Your task to perform on an android device: turn off wifi Image 0: 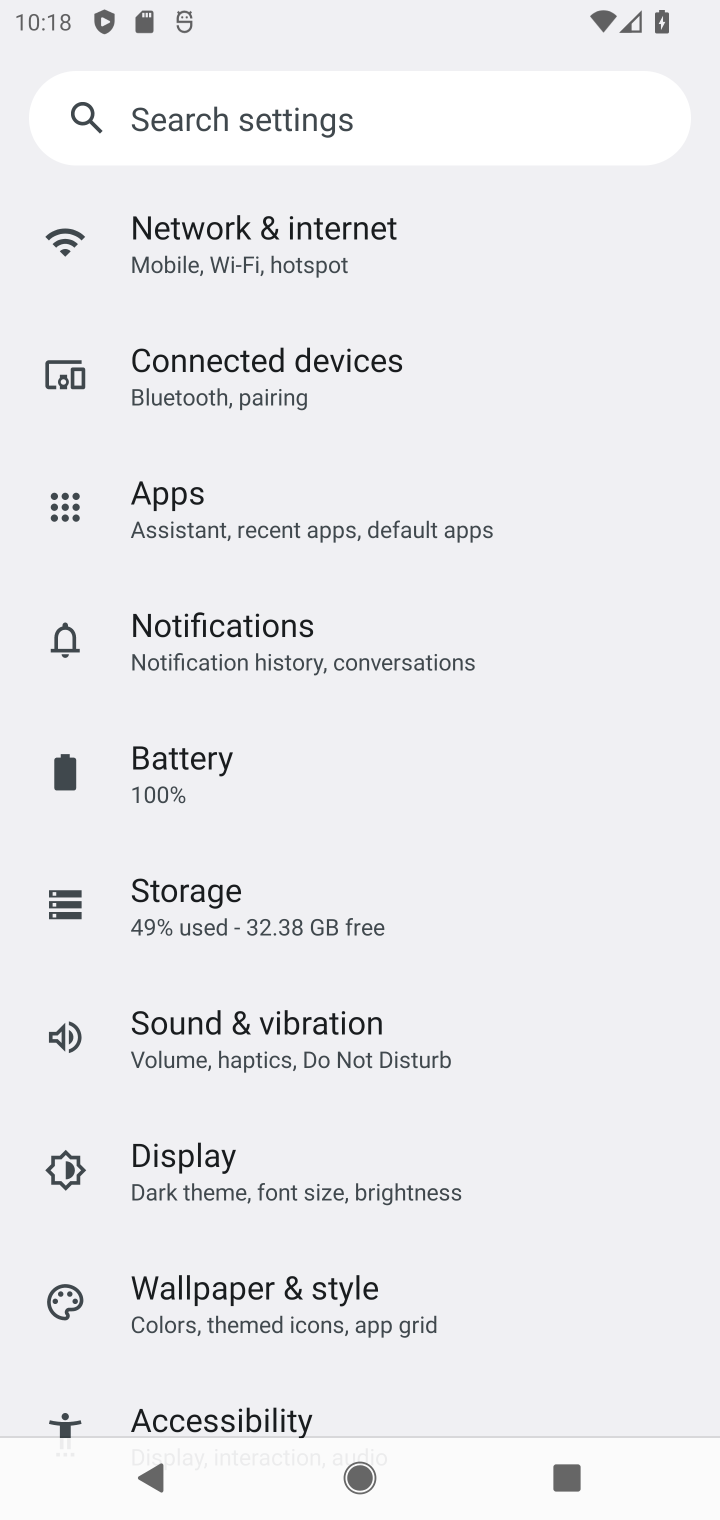
Step 0: drag from (555, 14) to (337, 1215)
Your task to perform on an android device: turn off wifi Image 1: 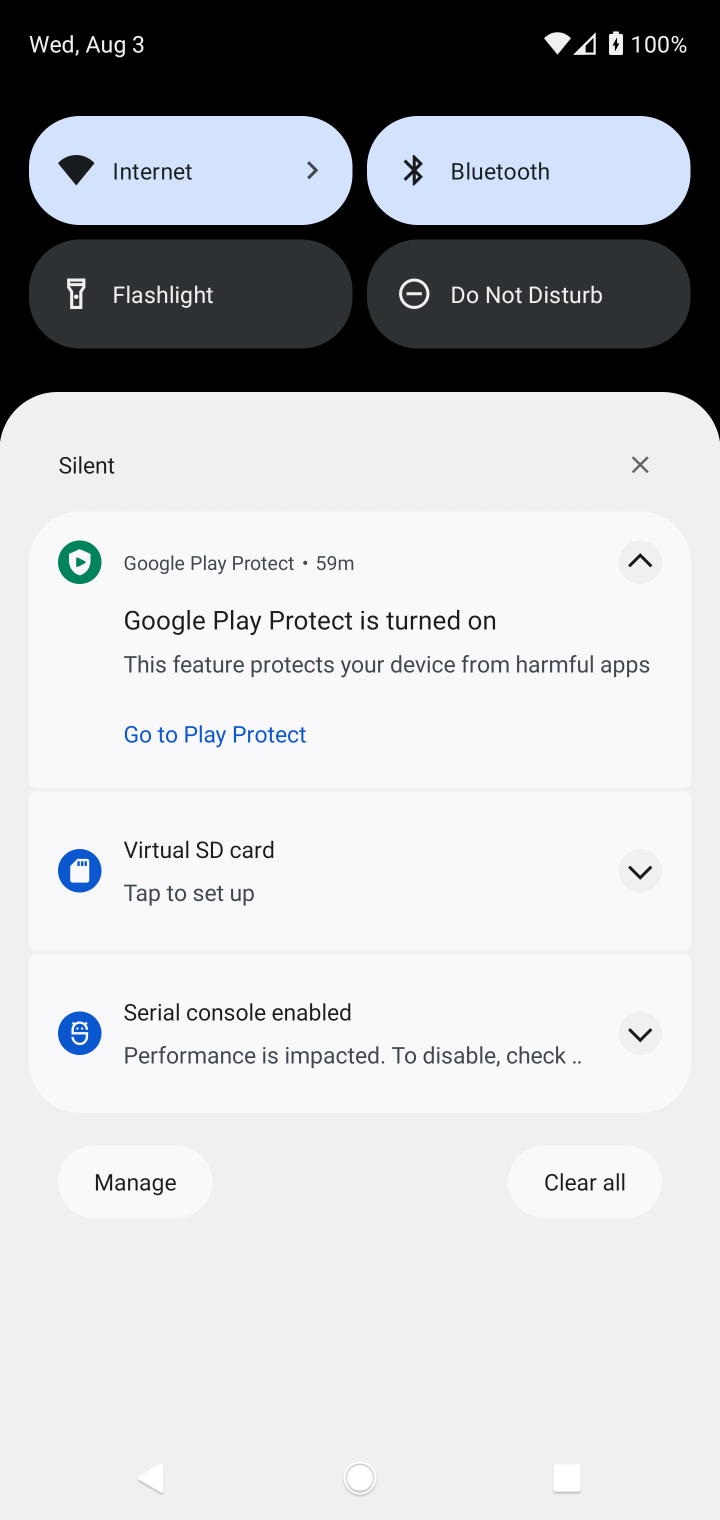
Step 1: click (127, 191)
Your task to perform on an android device: turn off wifi Image 2: 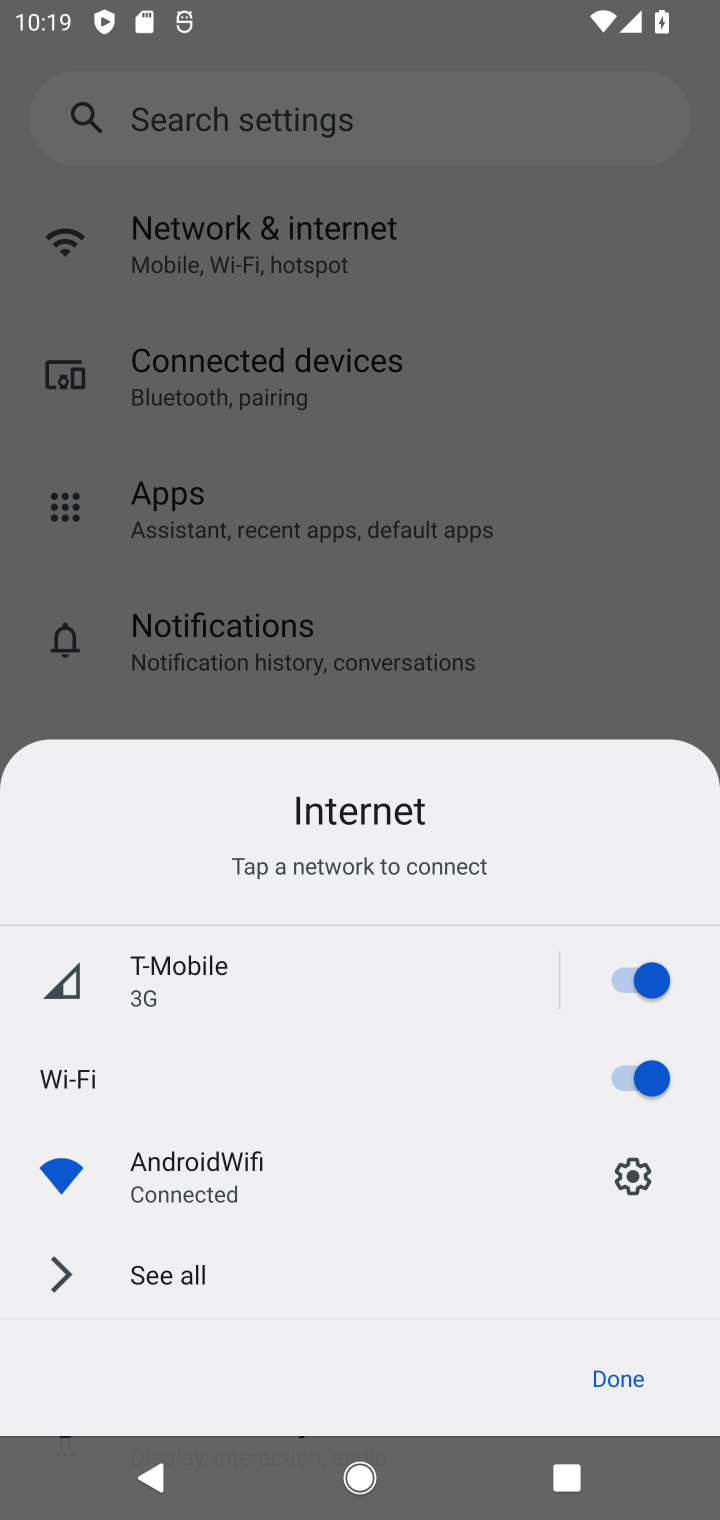
Step 2: click (271, 1181)
Your task to perform on an android device: turn off wifi Image 3: 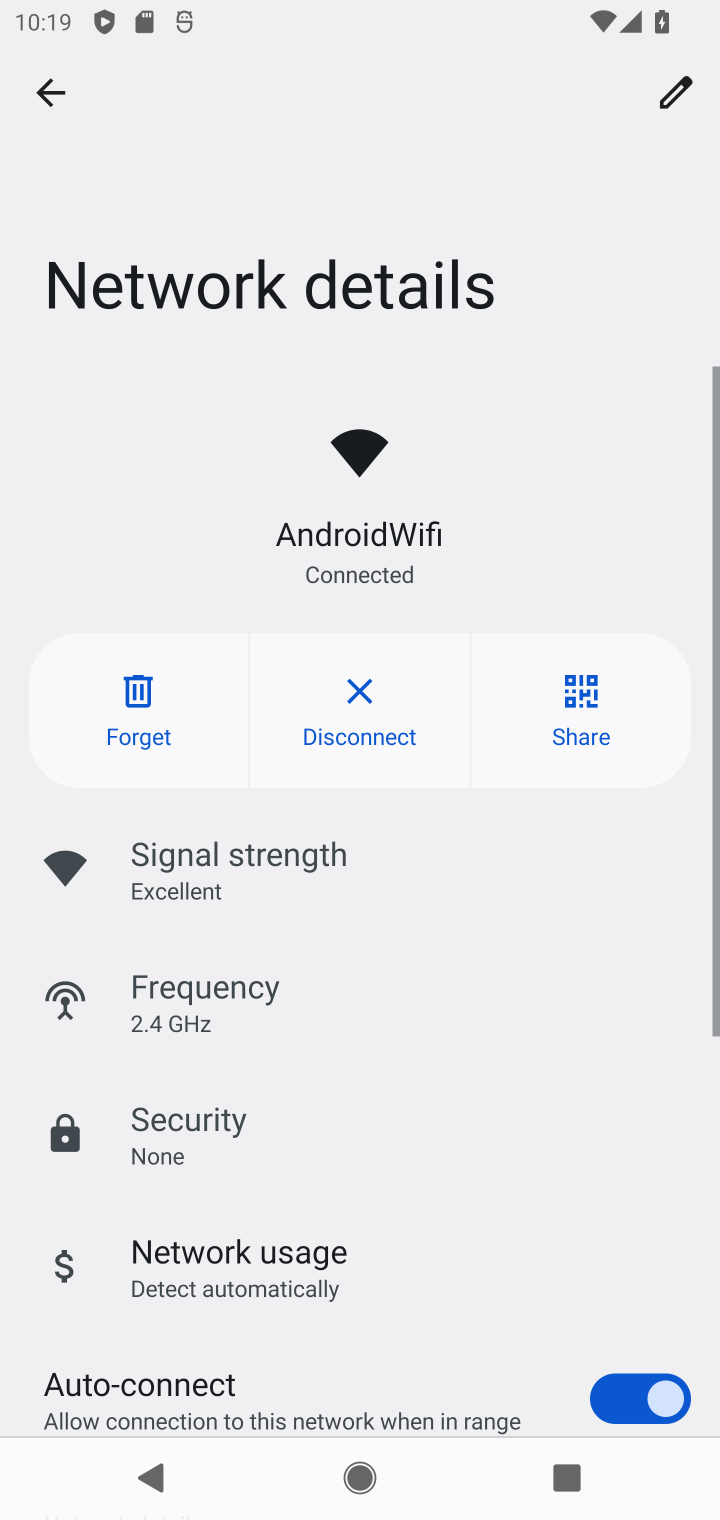
Step 3: click (354, 708)
Your task to perform on an android device: turn off wifi Image 4: 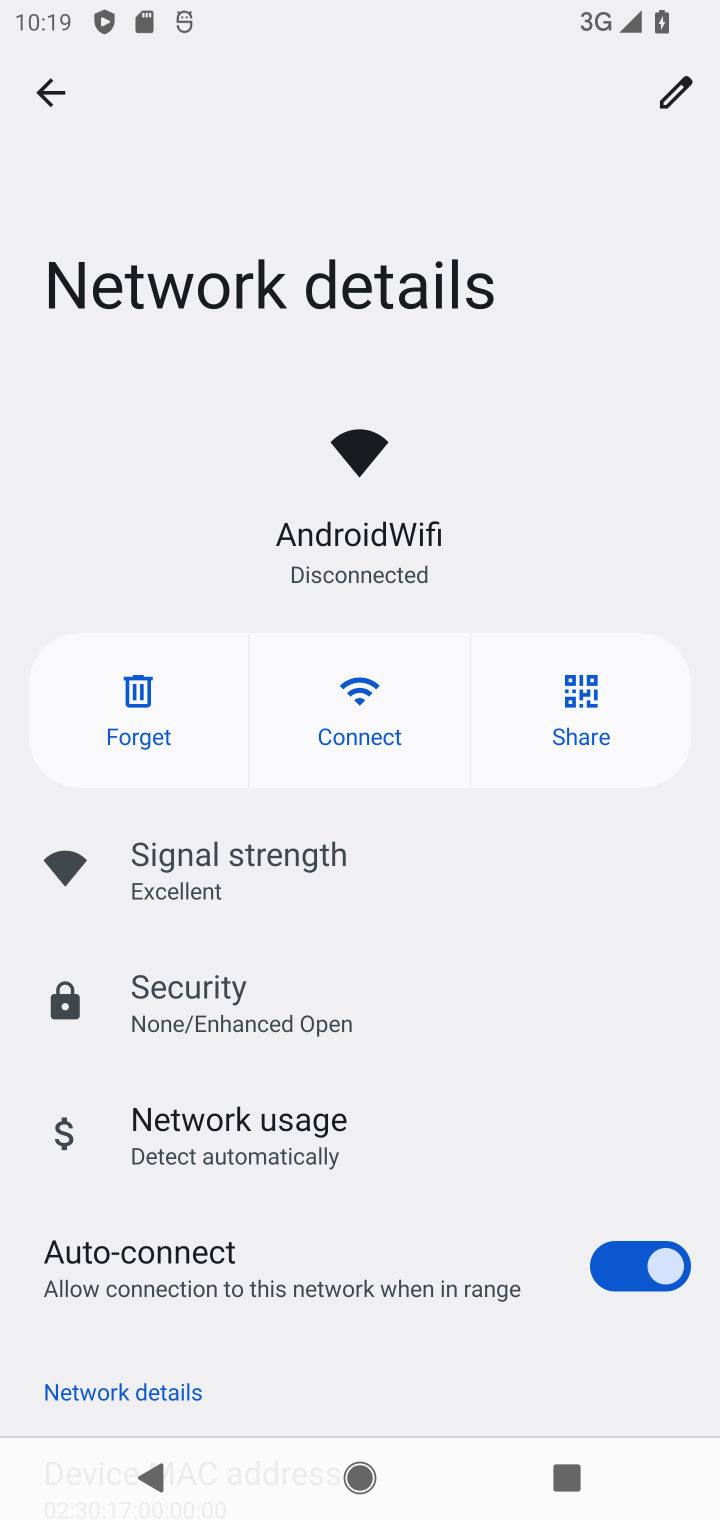
Step 4: task complete